Your task to perform on an android device: Open battery settings Image 0: 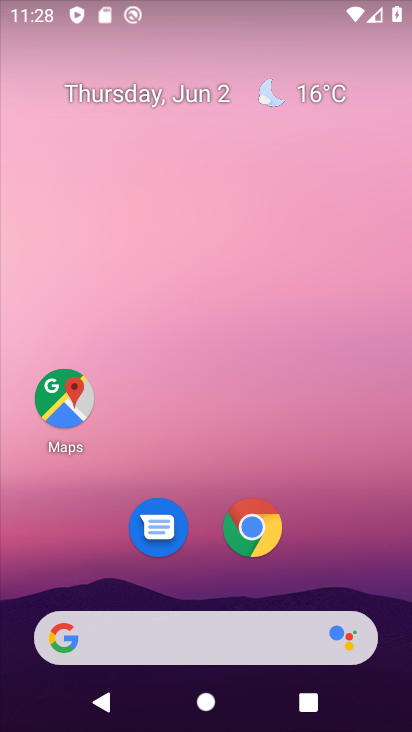
Step 0: drag from (173, 618) to (211, 65)
Your task to perform on an android device: Open battery settings Image 1: 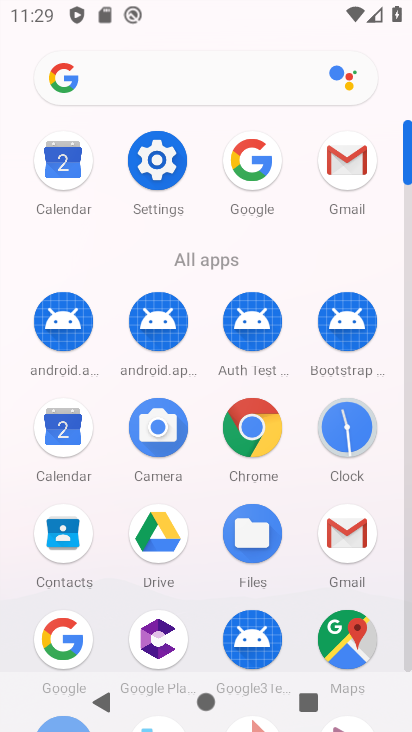
Step 1: click (150, 161)
Your task to perform on an android device: Open battery settings Image 2: 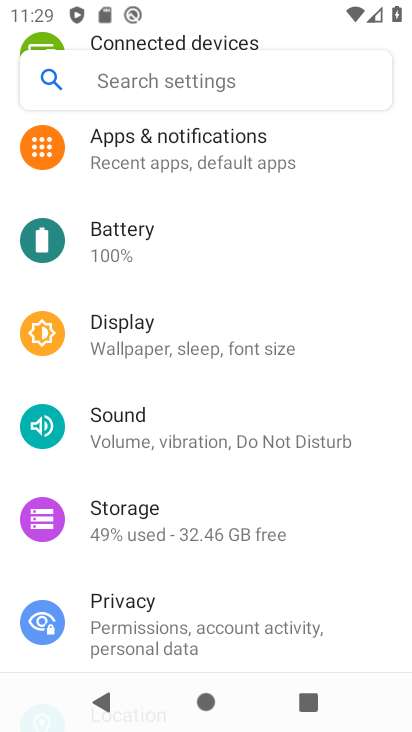
Step 2: click (116, 250)
Your task to perform on an android device: Open battery settings Image 3: 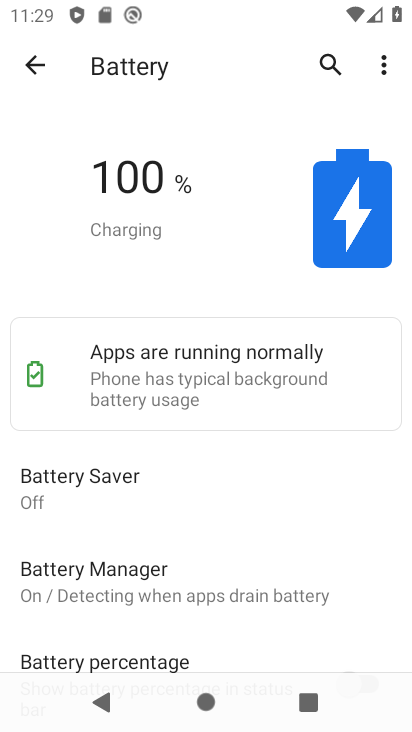
Step 3: task complete